Your task to perform on an android device: Open Google Chrome and open the bookmarks view Image 0: 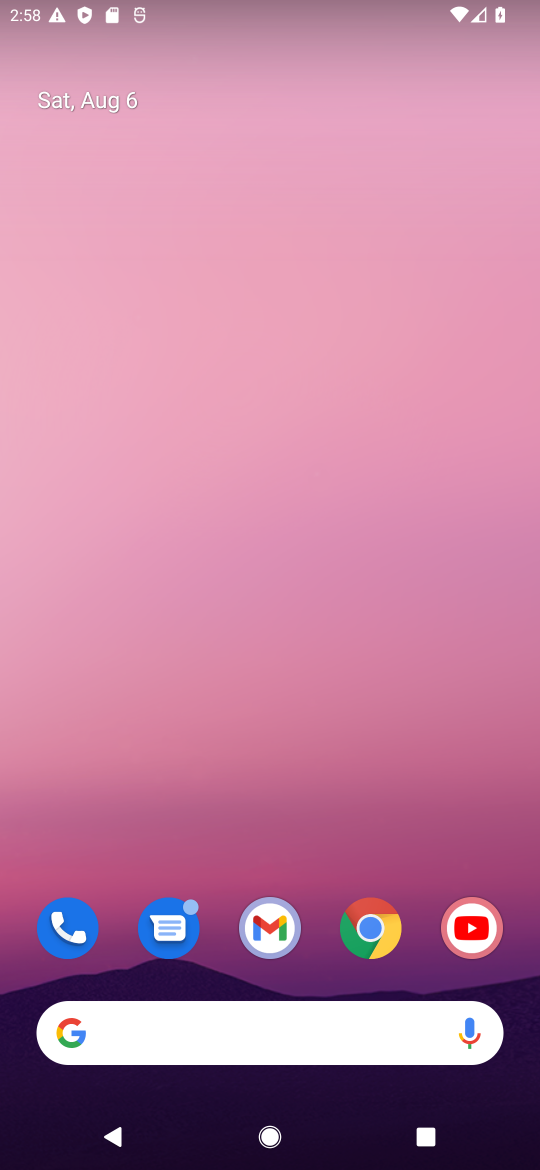
Step 0: click (392, 926)
Your task to perform on an android device: Open Google Chrome and open the bookmarks view Image 1: 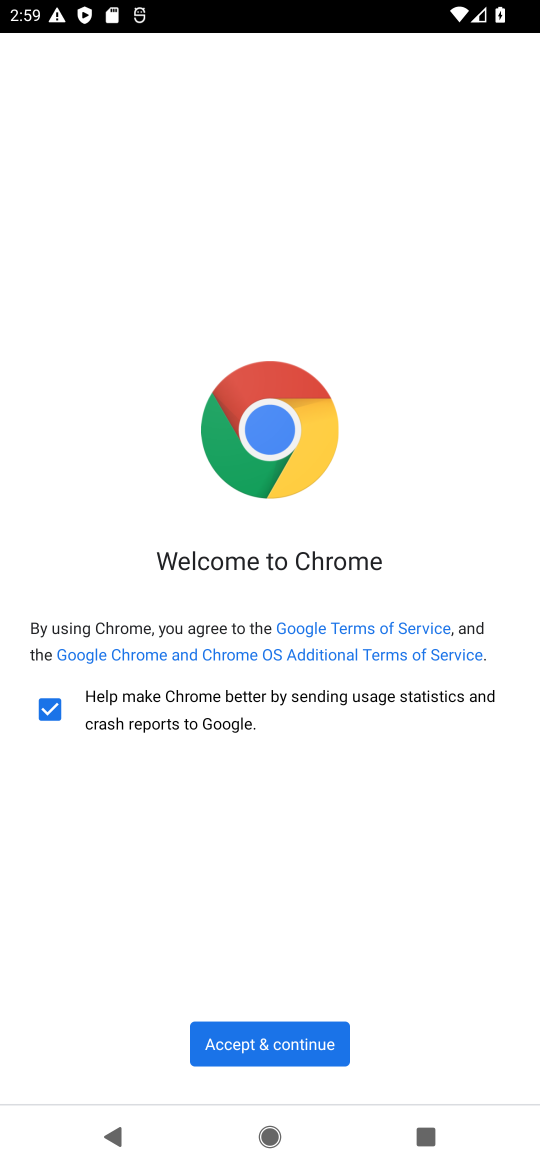
Step 1: click (221, 1020)
Your task to perform on an android device: Open Google Chrome and open the bookmarks view Image 2: 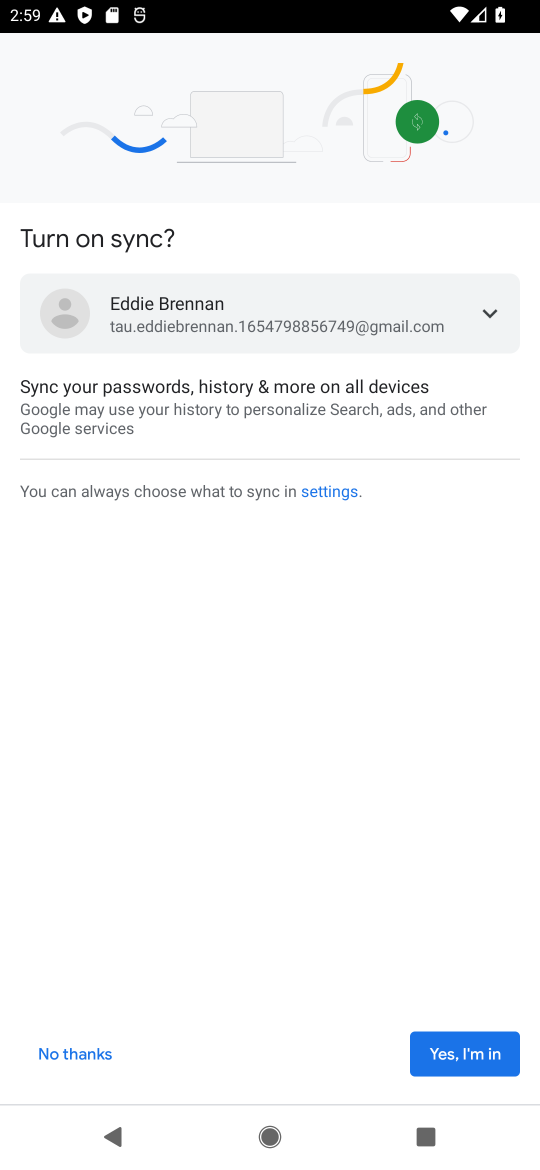
Step 2: click (447, 1044)
Your task to perform on an android device: Open Google Chrome and open the bookmarks view Image 3: 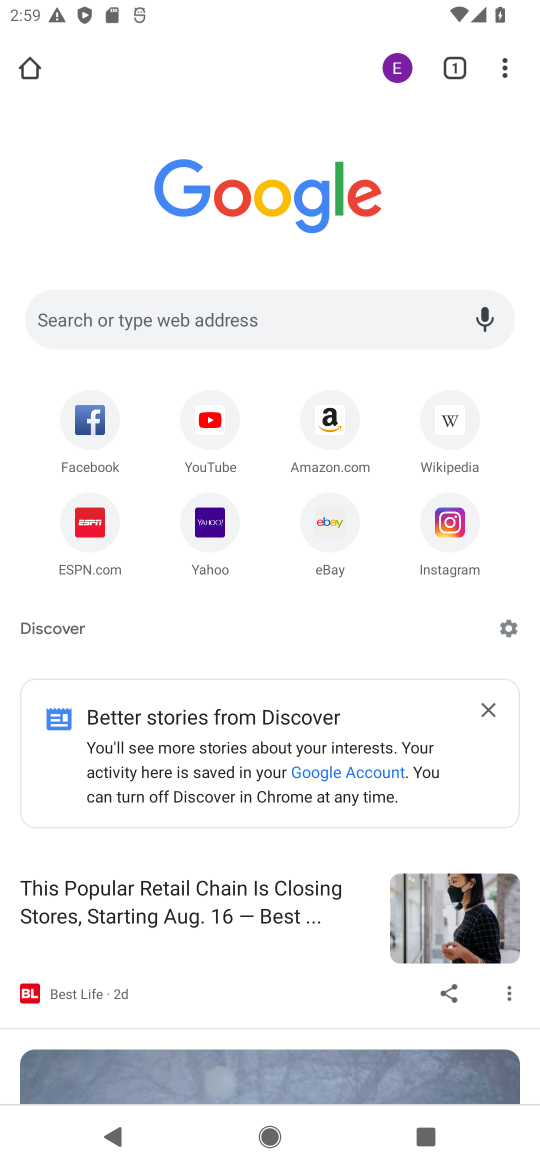
Step 3: click (503, 69)
Your task to perform on an android device: Open Google Chrome and open the bookmarks view Image 4: 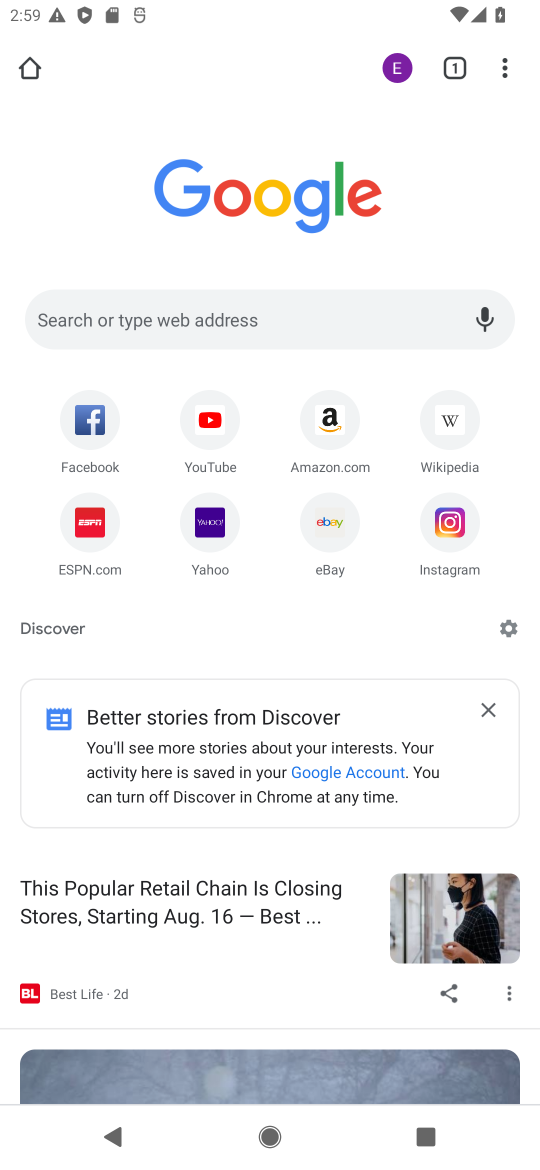
Step 4: click (508, 59)
Your task to perform on an android device: Open Google Chrome and open the bookmarks view Image 5: 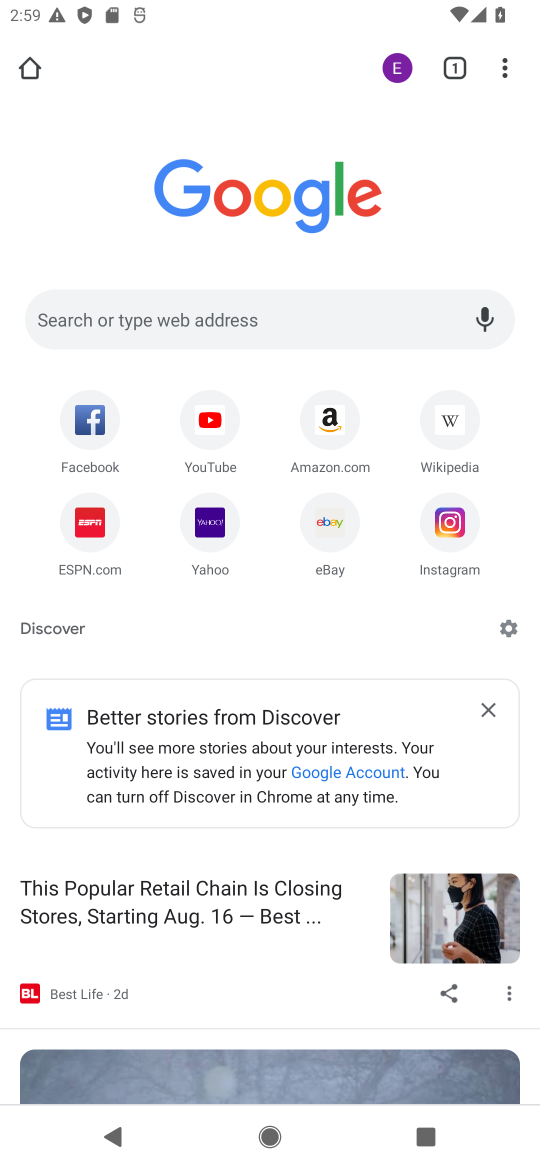
Step 5: click (510, 65)
Your task to perform on an android device: Open Google Chrome and open the bookmarks view Image 6: 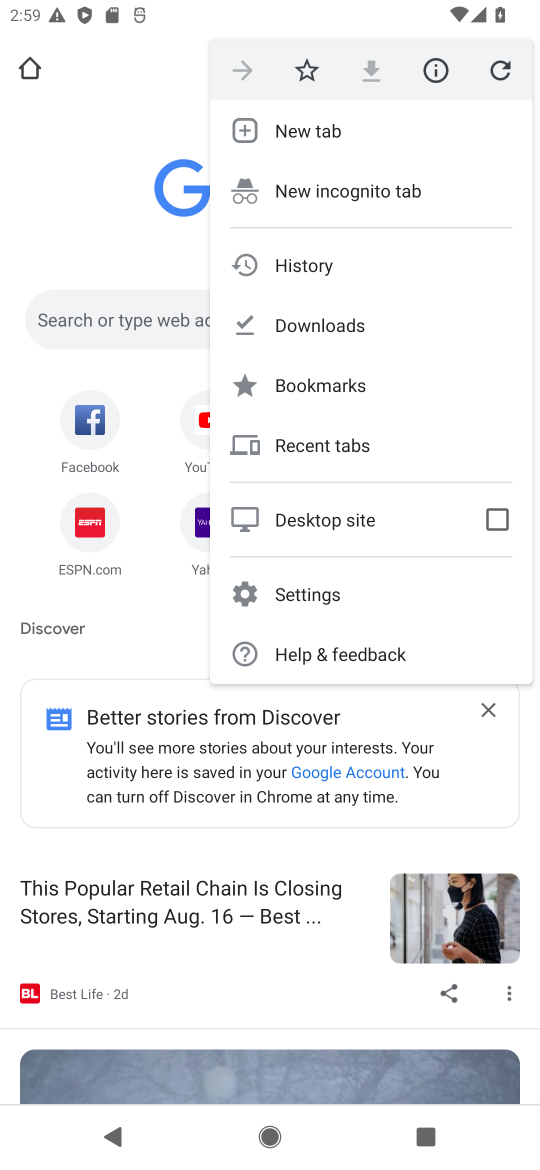
Step 6: click (361, 394)
Your task to perform on an android device: Open Google Chrome and open the bookmarks view Image 7: 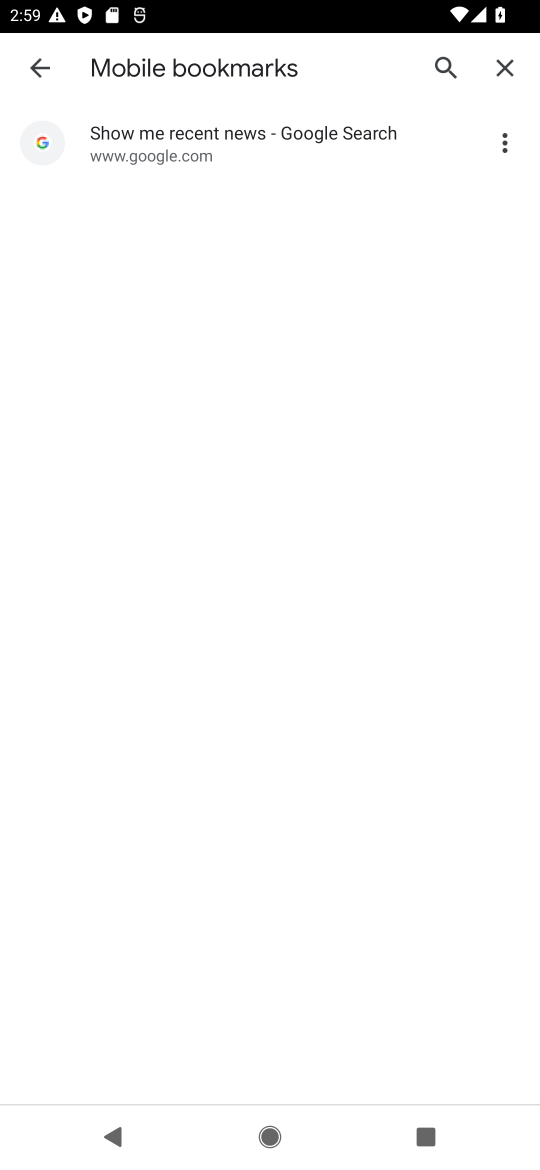
Step 7: task complete